Your task to perform on an android device: toggle sleep mode Image 0: 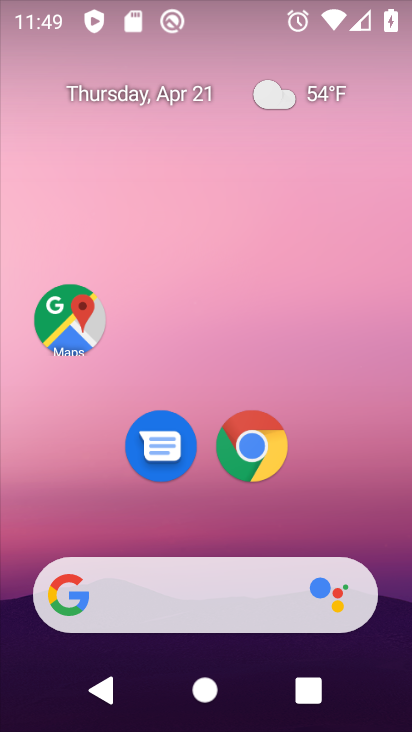
Step 0: drag from (389, 497) to (314, 251)
Your task to perform on an android device: toggle sleep mode Image 1: 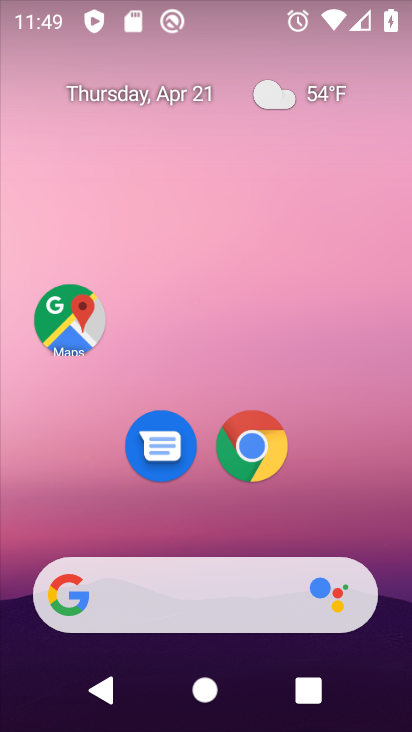
Step 1: drag from (338, 446) to (258, 163)
Your task to perform on an android device: toggle sleep mode Image 2: 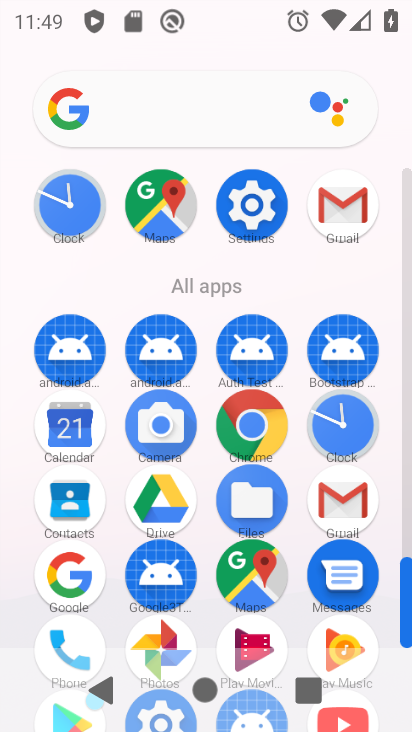
Step 2: click (266, 206)
Your task to perform on an android device: toggle sleep mode Image 3: 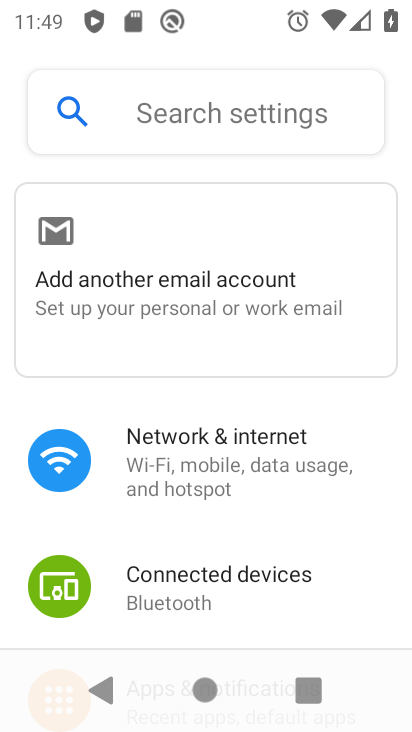
Step 3: drag from (270, 535) to (228, 300)
Your task to perform on an android device: toggle sleep mode Image 4: 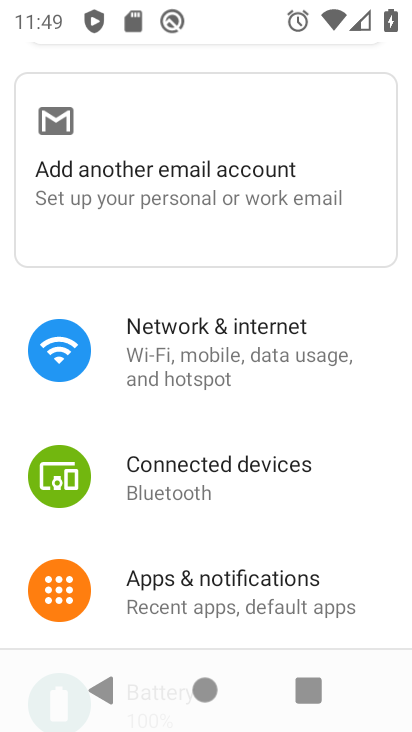
Step 4: drag from (313, 520) to (246, 196)
Your task to perform on an android device: toggle sleep mode Image 5: 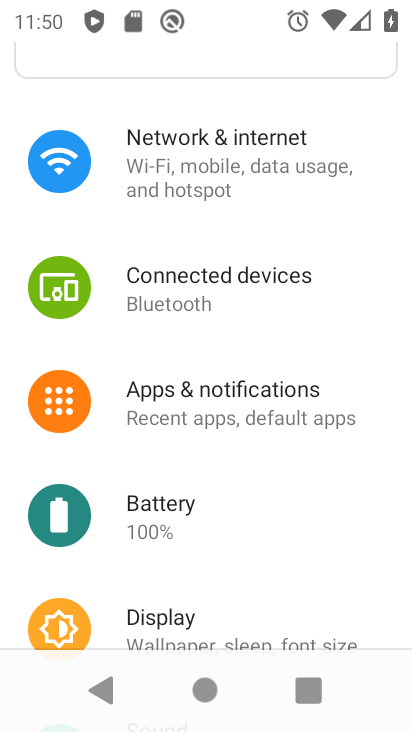
Step 5: drag from (349, 481) to (284, 244)
Your task to perform on an android device: toggle sleep mode Image 6: 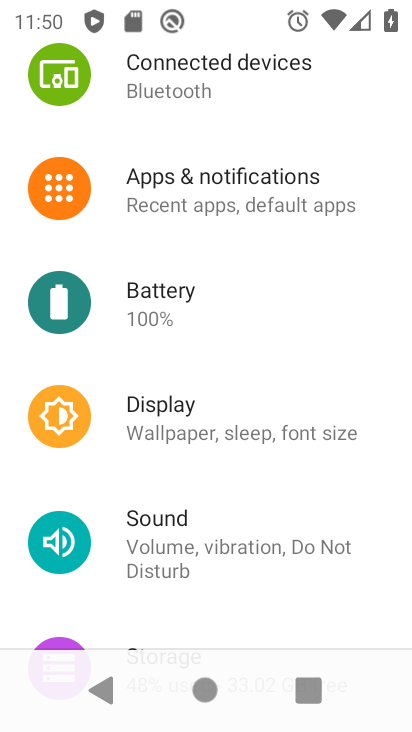
Step 6: click (317, 415)
Your task to perform on an android device: toggle sleep mode Image 7: 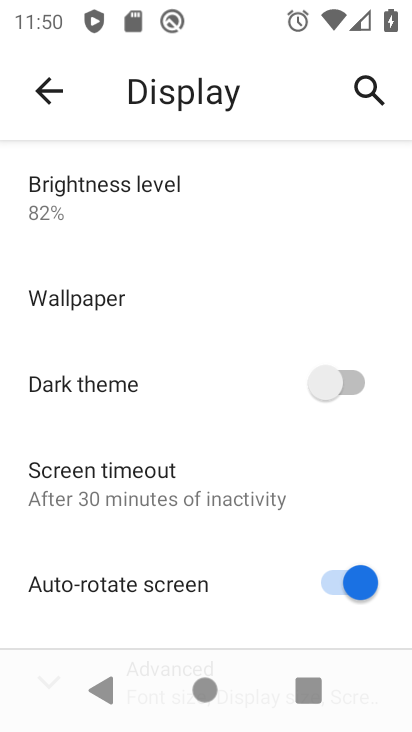
Step 7: drag from (226, 530) to (189, 160)
Your task to perform on an android device: toggle sleep mode Image 8: 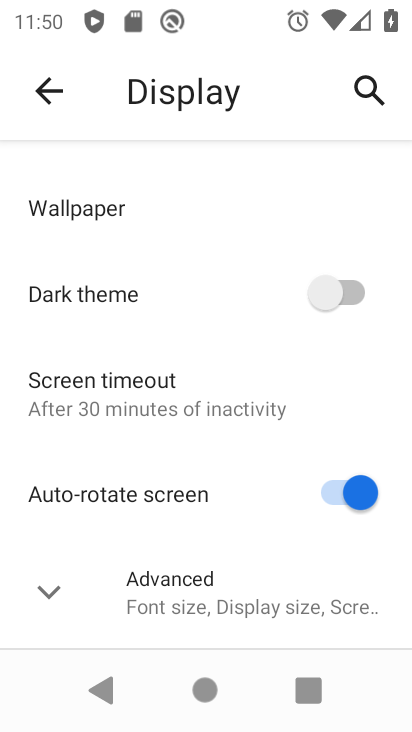
Step 8: click (273, 587)
Your task to perform on an android device: toggle sleep mode Image 9: 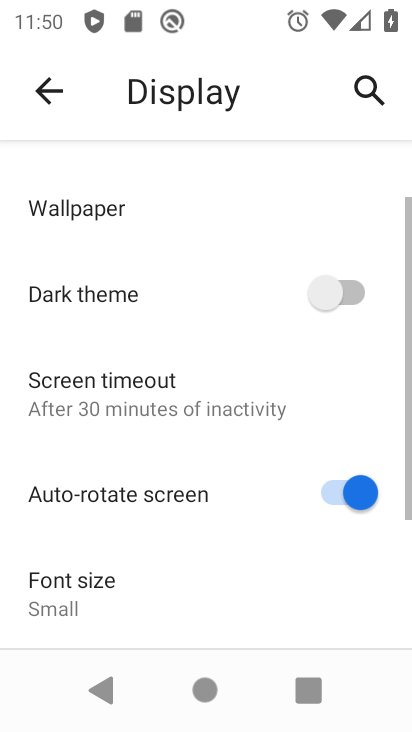
Step 9: task complete